Your task to perform on an android device: Turn off the flashlight Image 0: 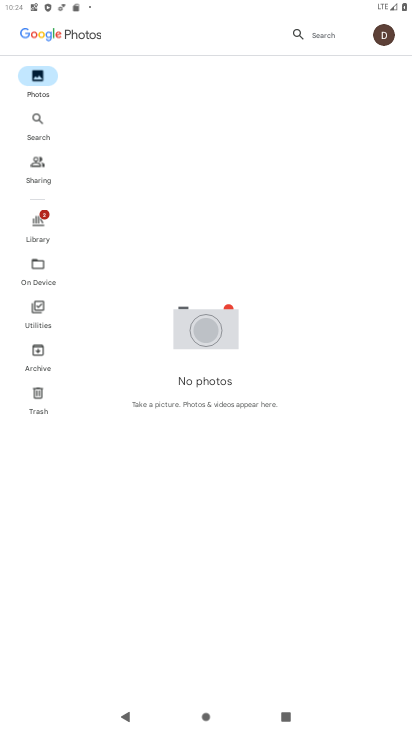
Step 0: drag from (194, 1) to (240, 399)
Your task to perform on an android device: Turn off the flashlight Image 1: 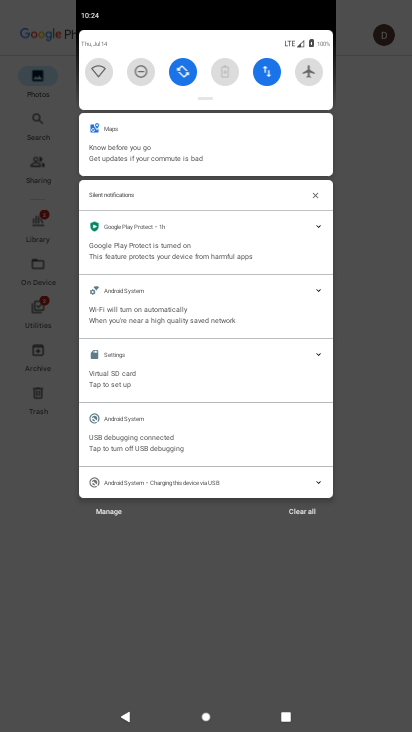
Step 1: task complete